Your task to perform on an android device: Go to Google maps Image 0: 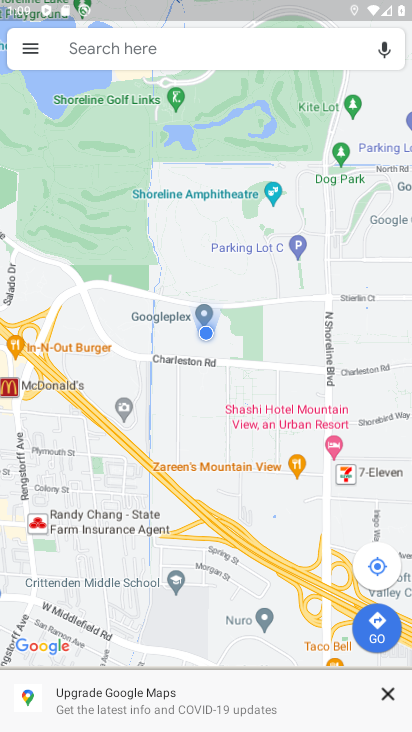
Step 0: task complete